Your task to perform on an android device: Open the calendar and show me this week's events? Image 0: 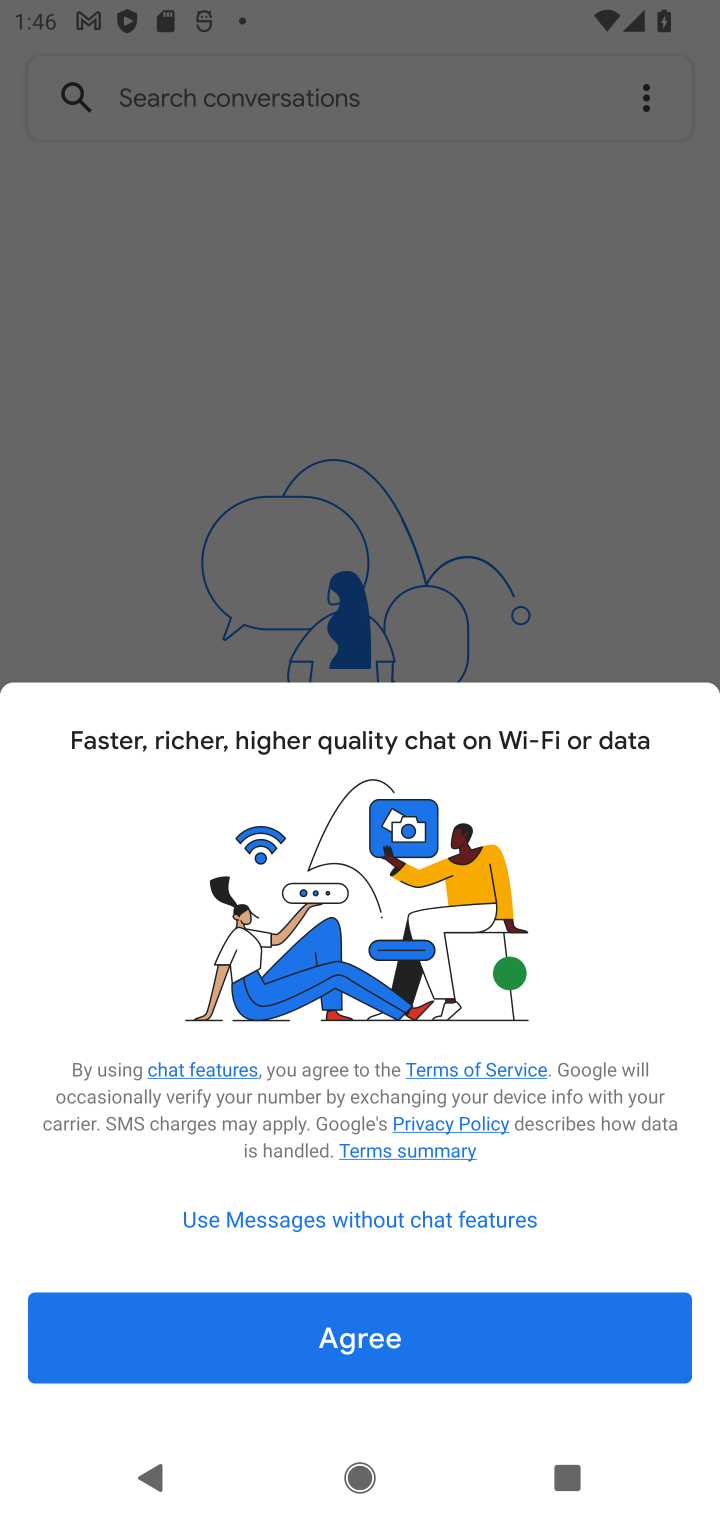
Step 0: press home button
Your task to perform on an android device: Open the calendar and show me this week's events? Image 1: 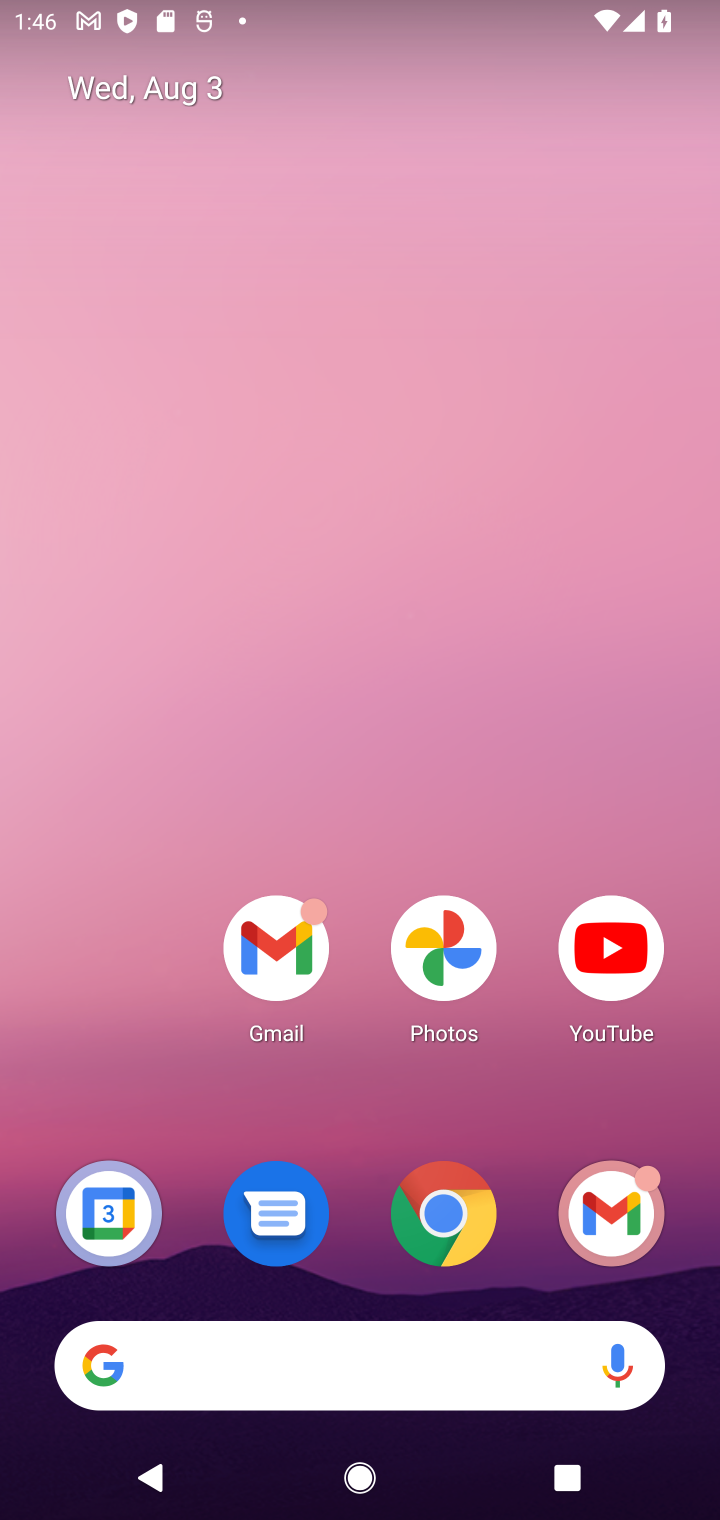
Step 1: drag from (364, 1289) to (453, 0)
Your task to perform on an android device: Open the calendar and show me this week's events? Image 2: 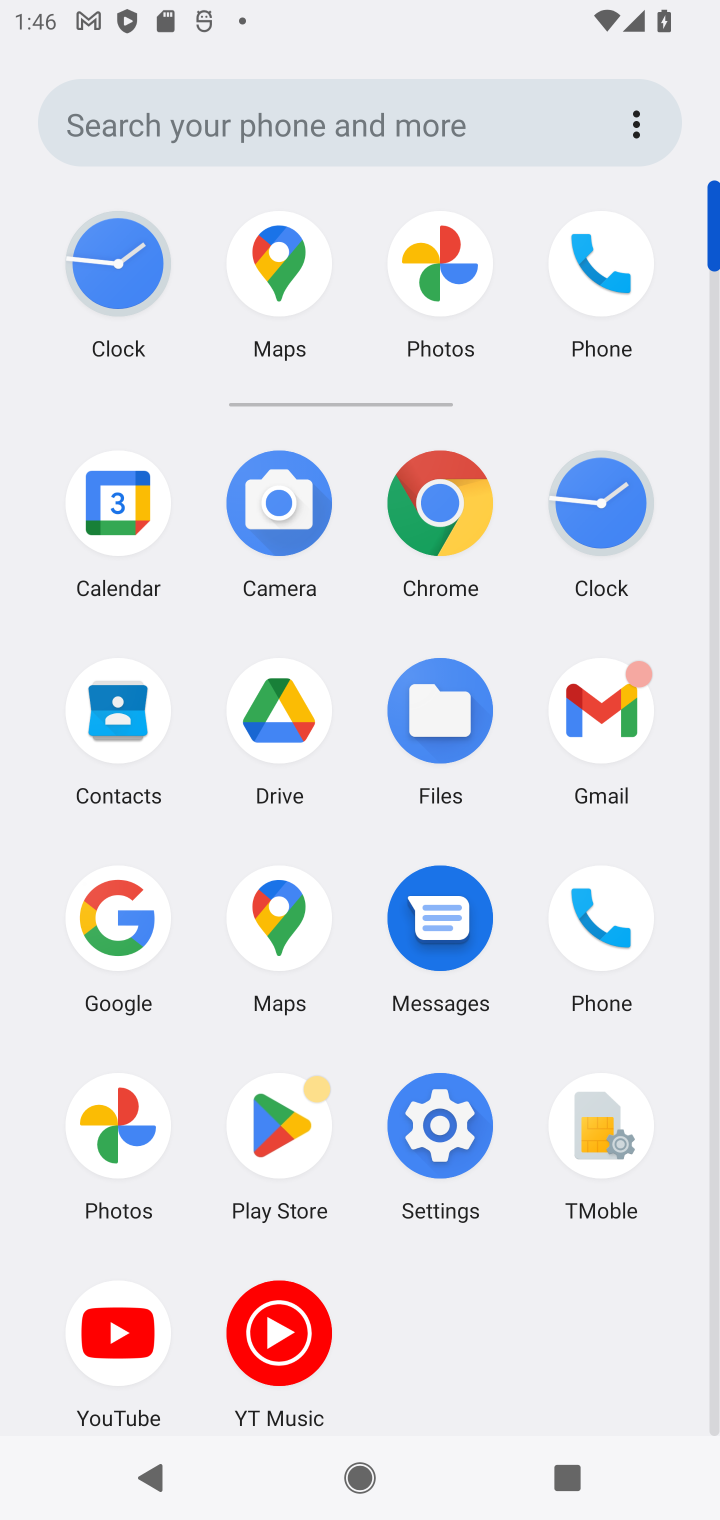
Step 2: click (117, 497)
Your task to perform on an android device: Open the calendar and show me this week's events? Image 3: 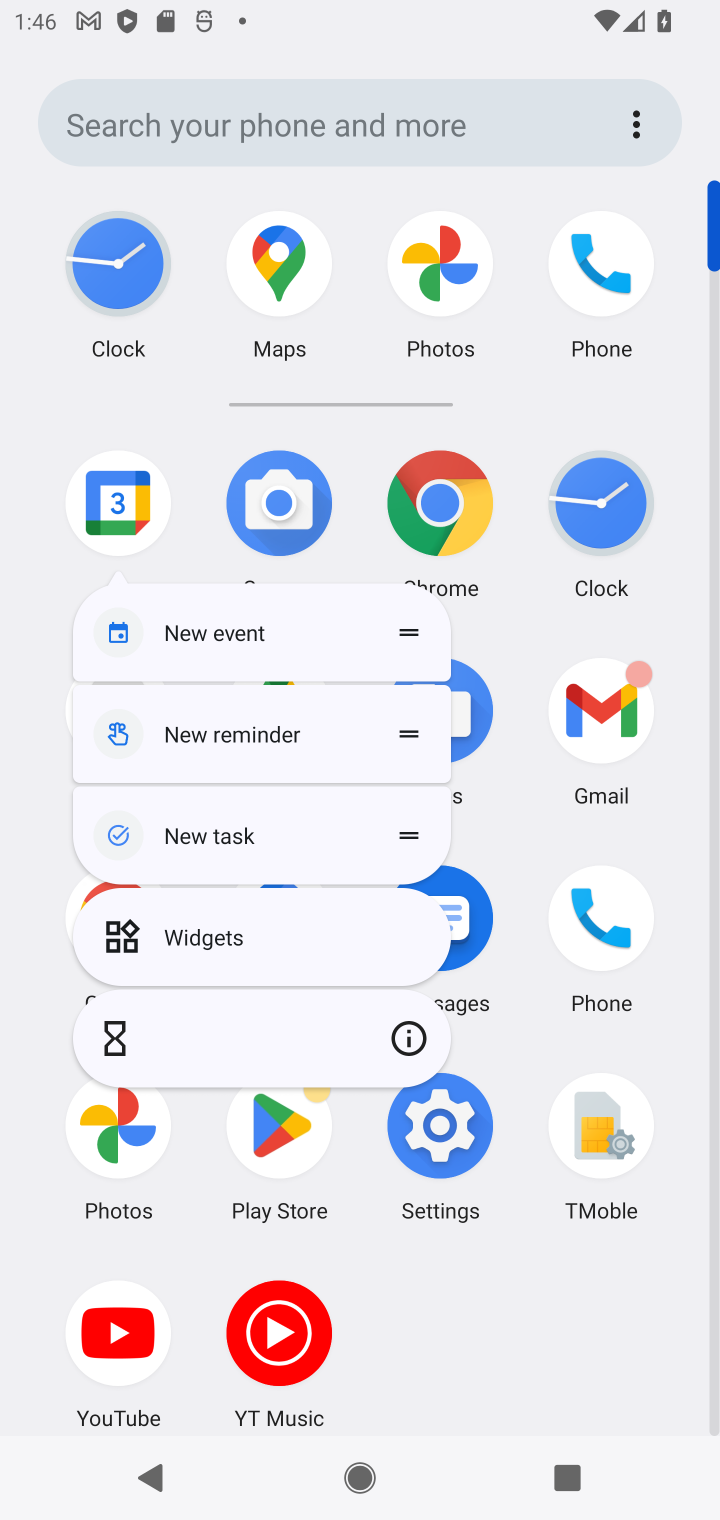
Step 3: click (126, 499)
Your task to perform on an android device: Open the calendar and show me this week's events? Image 4: 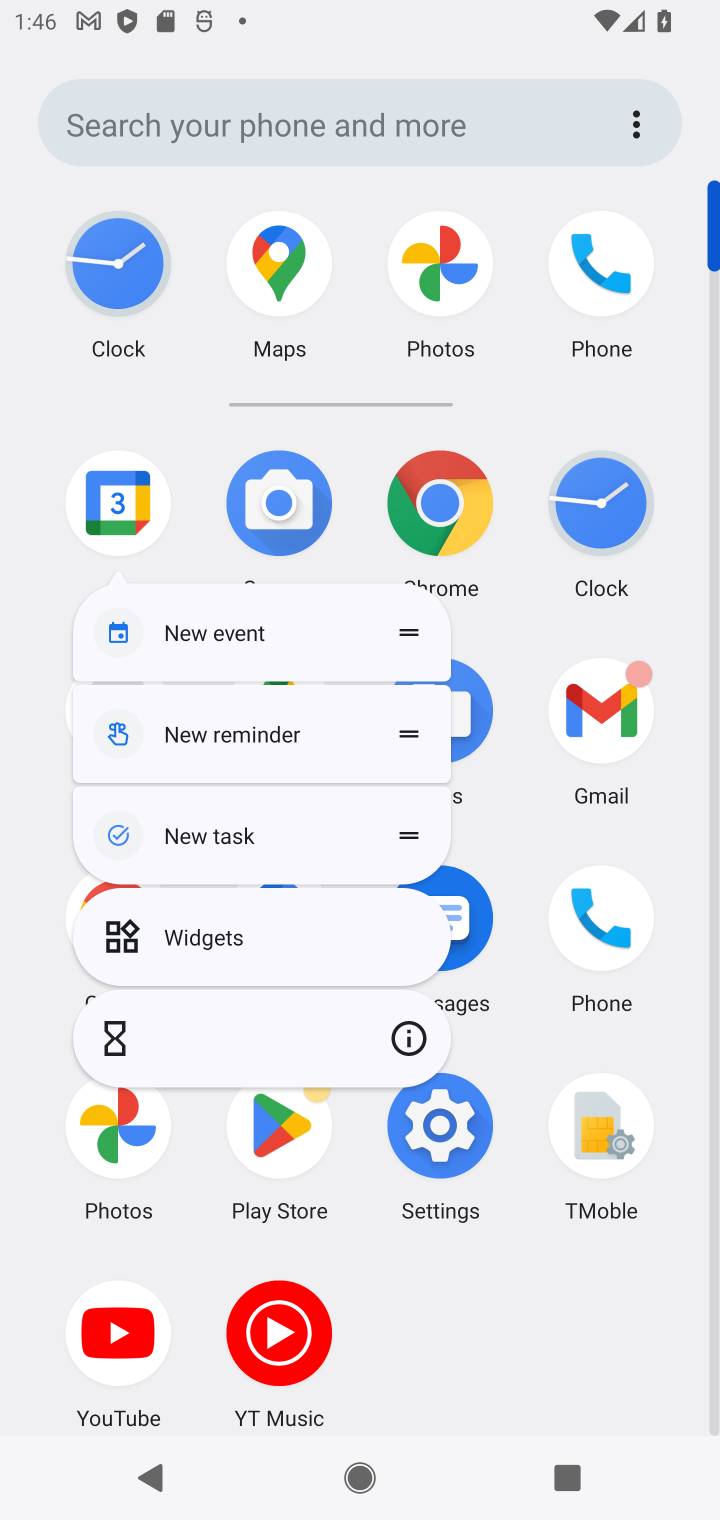
Step 4: click (126, 499)
Your task to perform on an android device: Open the calendar and show me this week's events? Image 5: 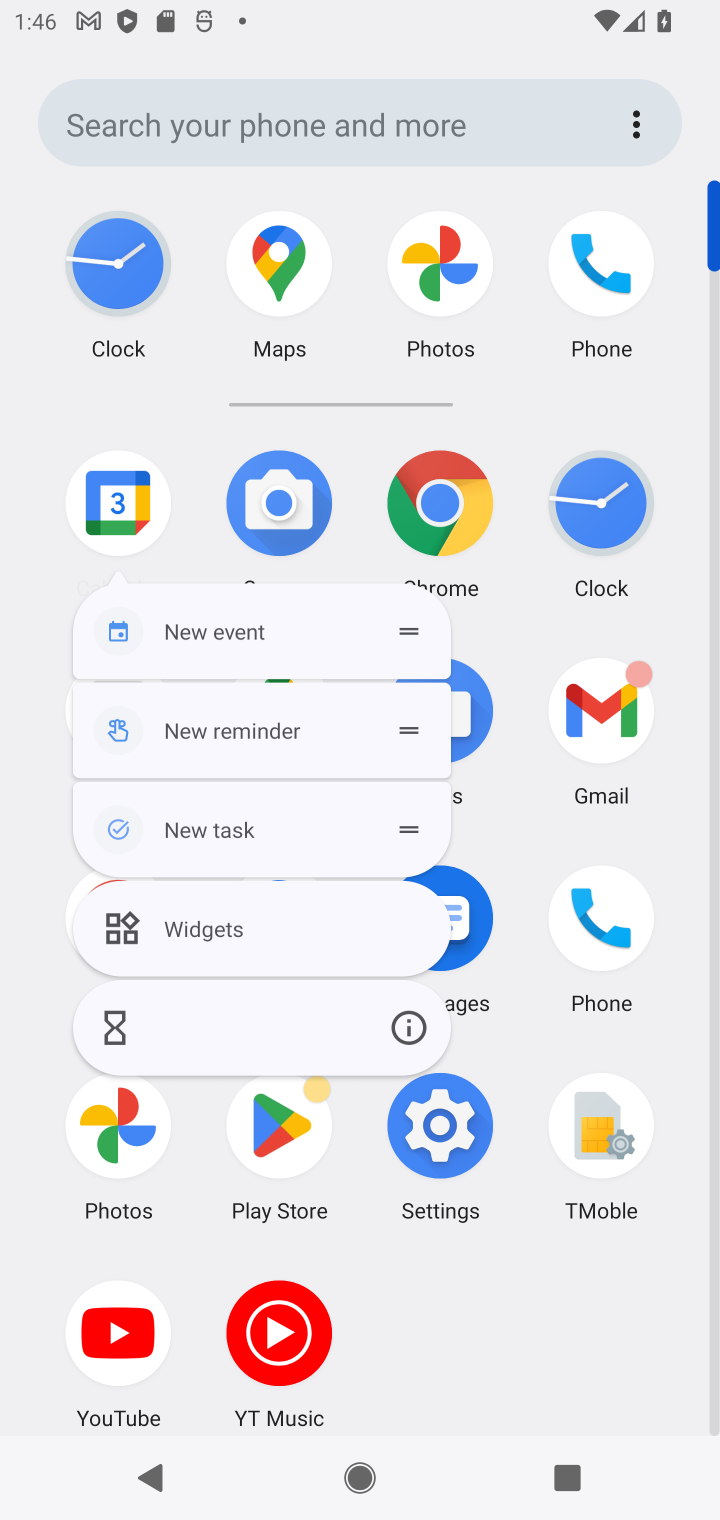
Step 5: click (126, 499)
Your task to perform on an android device: Open the calendar and show me this week's events? Image 6: 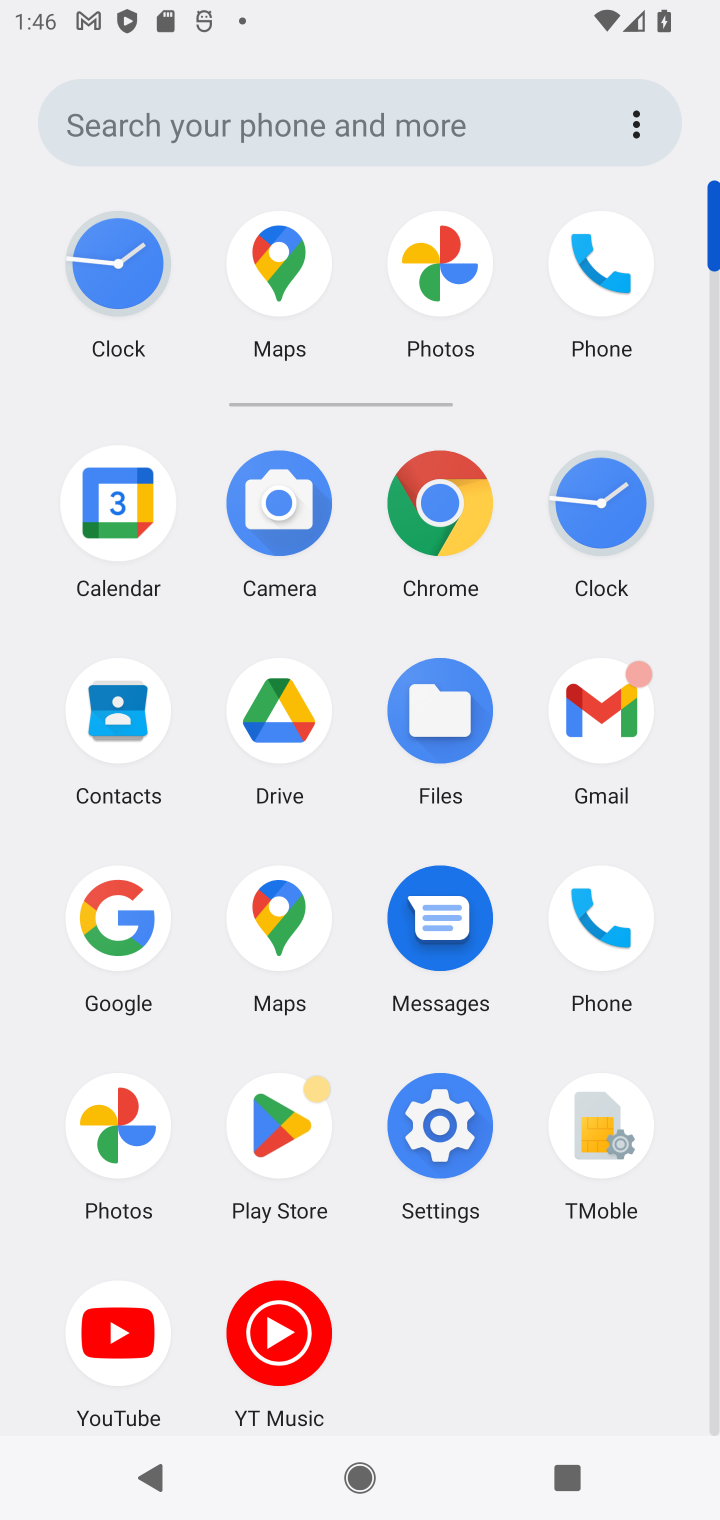
Step 6: click (126, 499)
Your task to perform on an android device: Open the calendar and show me this week's events? Image 7: 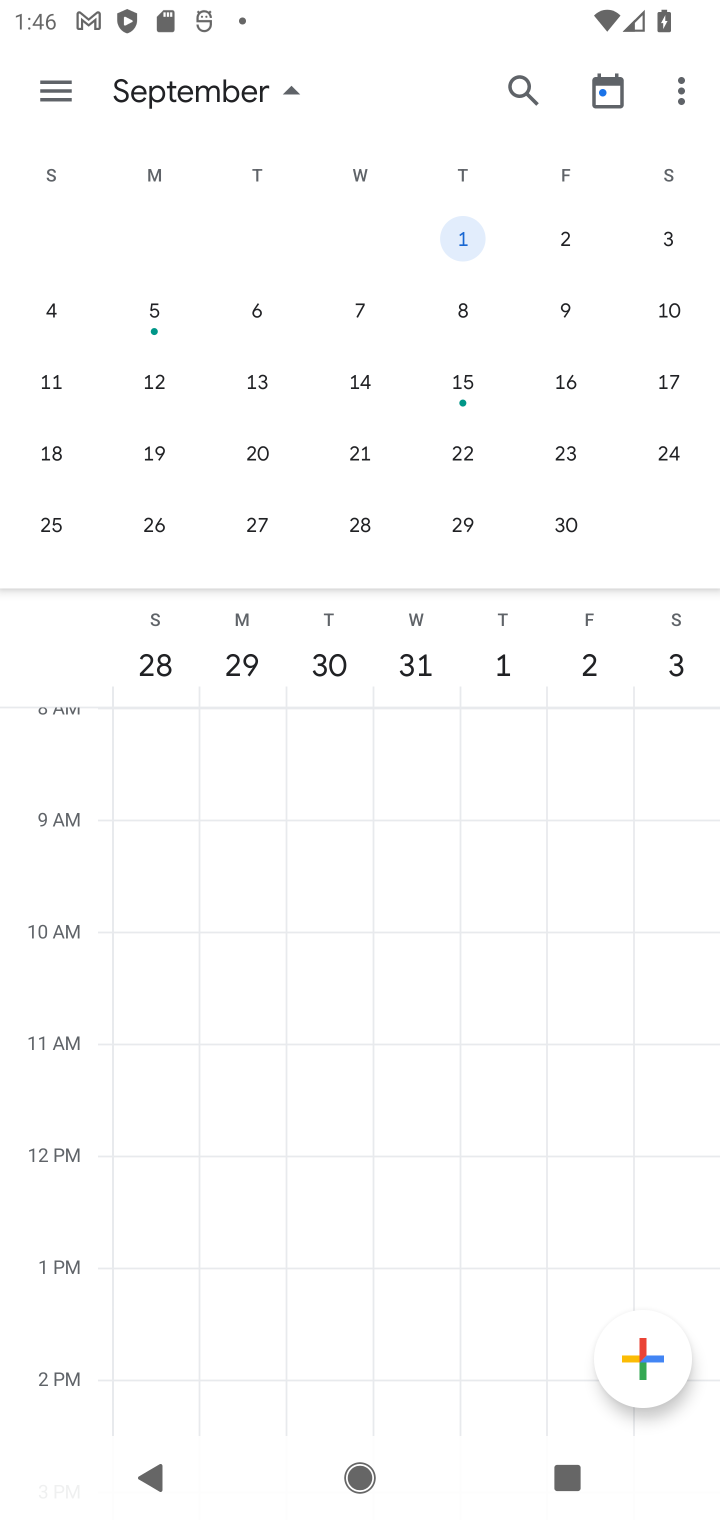
Step 7: drag from (233, 470) to (702, 443)
Your task to perform on an android device: Open the calendar and show me this week's events? Image 8: 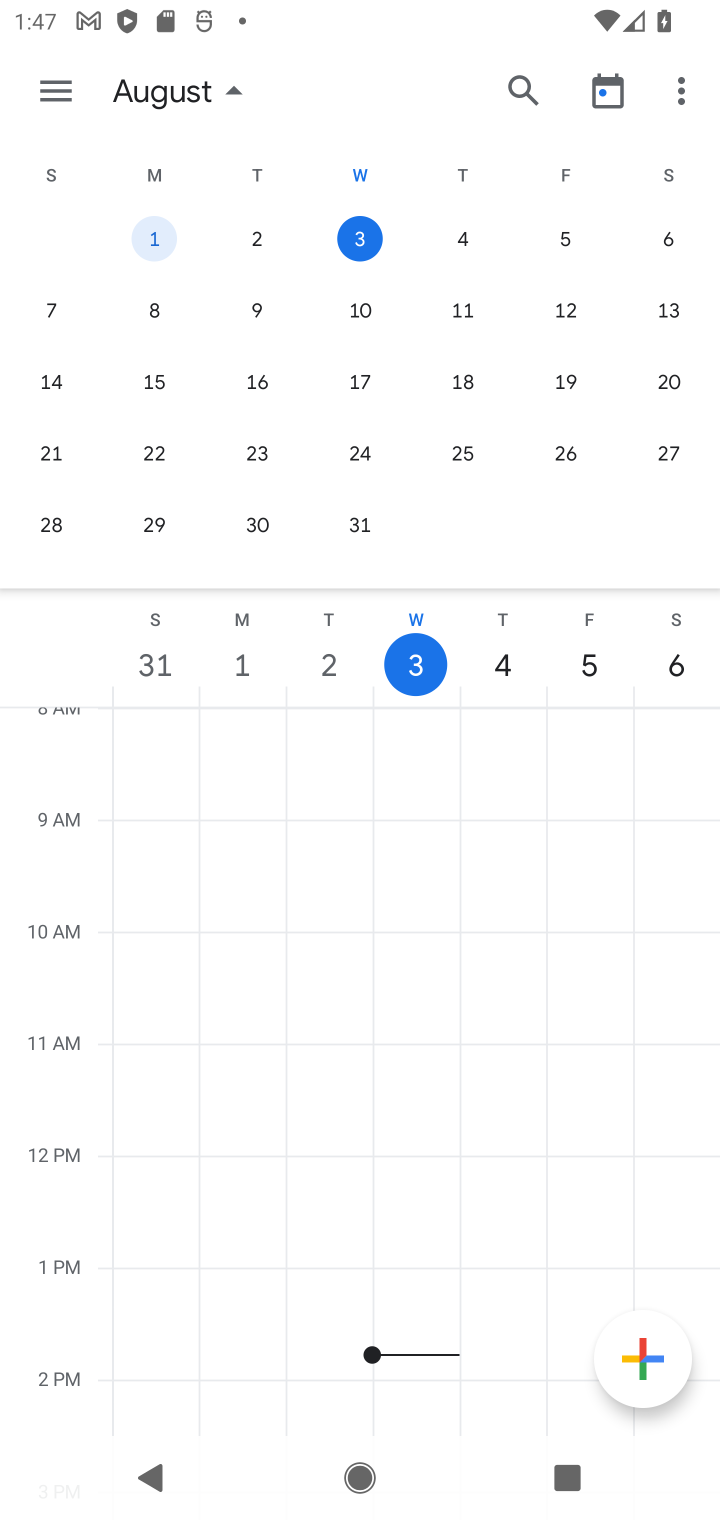
Step 8: click (358, 242)
Your task to perform on an android device: Open the calendar and show me this week's events? Image 9: 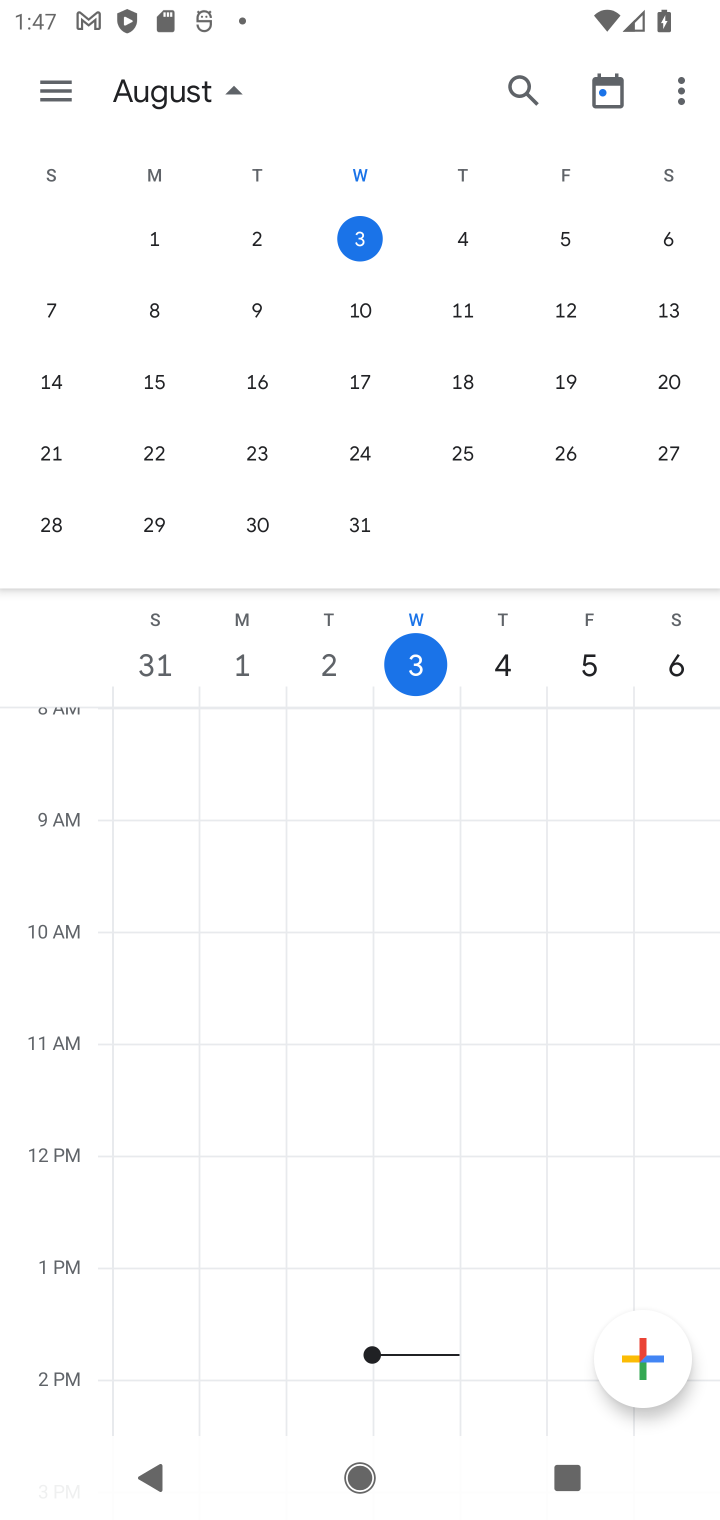
Step 9: task complete